Your task to perform on an android device: What is the news today? Image 0: 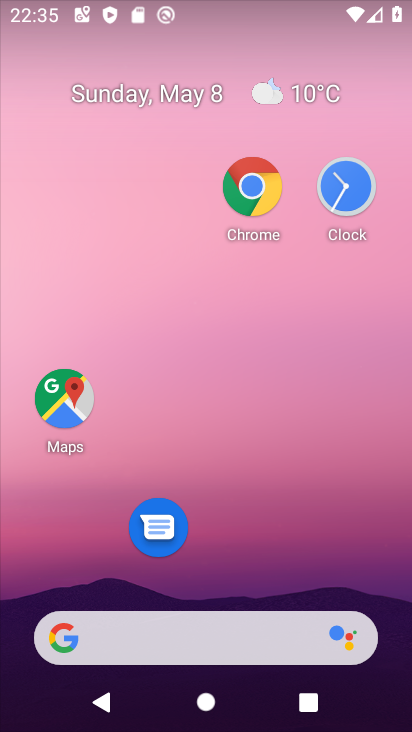
Step 0: click (244, 183)
Your task to perform on an android device: What is the news today? Image 1: 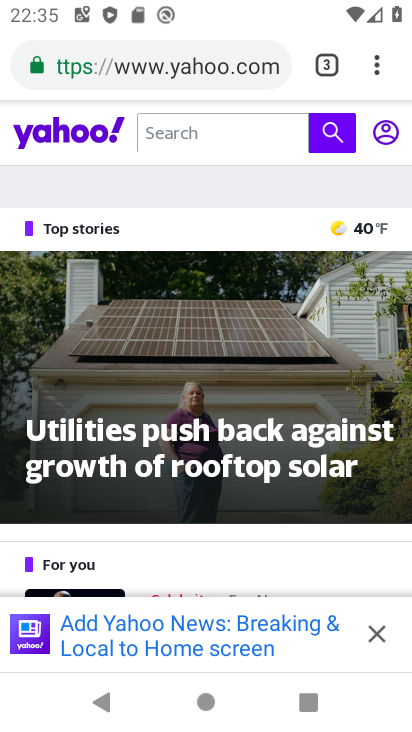
Step 1: click (335, 65)
Your task to perform on an android device: What is the news today? Image 2: 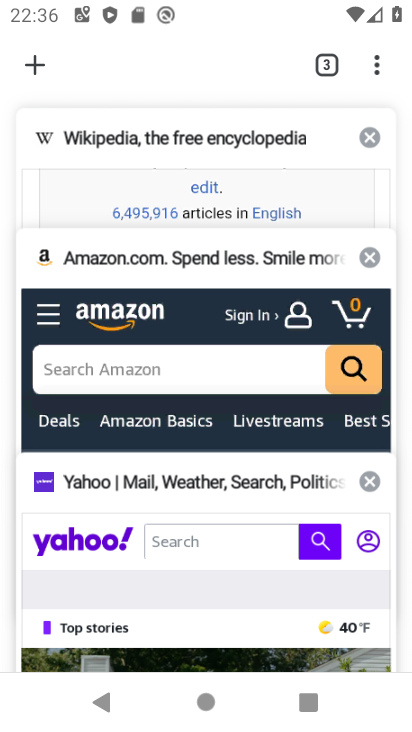
Step 2: click (36, 72)
Your task to perform on an android device: What is the news today? Image 3: 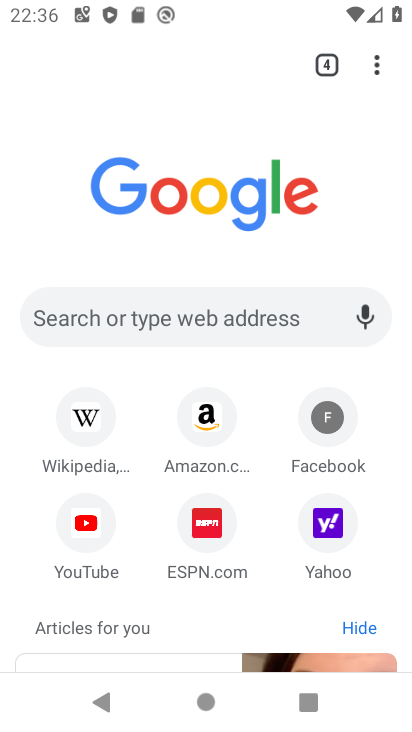
Step 3: click (207, 314)
Your task to perform on an android device: What is the news today? Image 4: 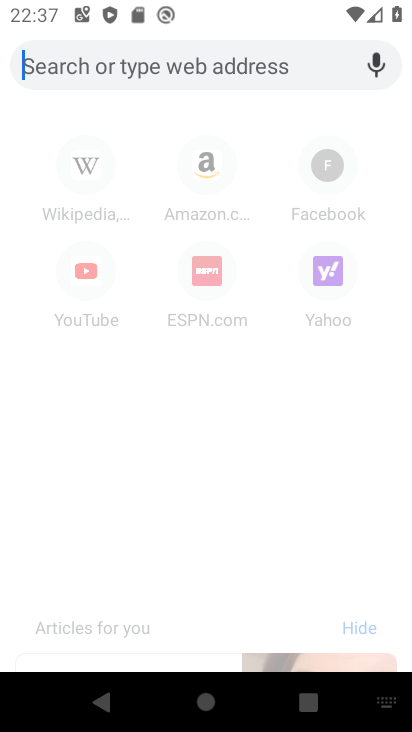
Step 4: type "news today"
Your task to perform on an android device: What is the news today? Image 5: 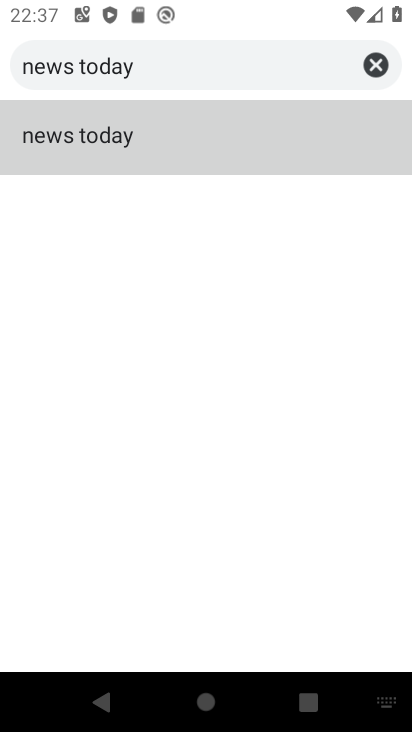
Step 5: click (185, 157)
Your task to perform on an android device: What is the news today? Image 6: 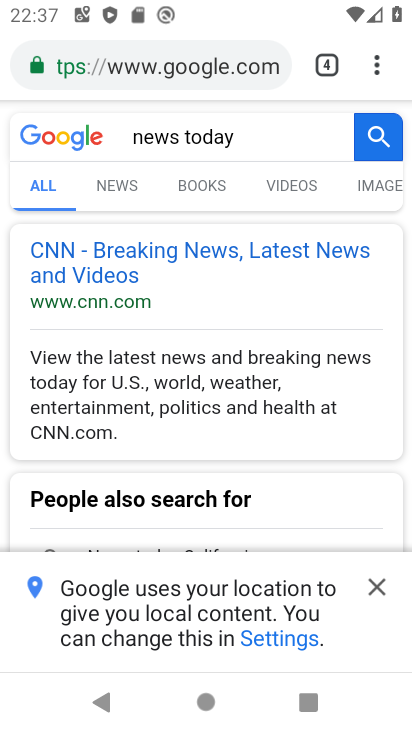
Step 6: click (114, 192)
Your task to perform on an android device: What is the news today? Image 7: 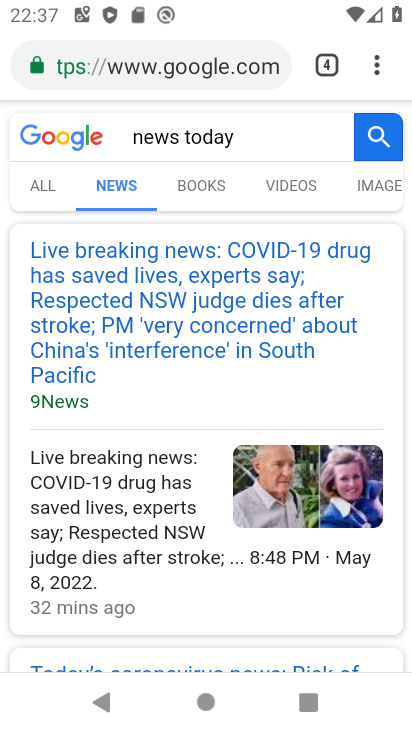
Step 7: task complete